Your task to perform on an android device: Open Google Chrome Image 0: 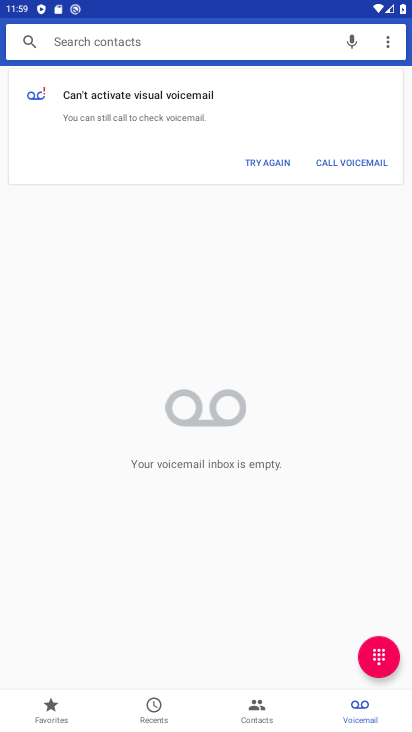
Step 0: press home button
Your task to perform on an android device: Open Google Chrome Image 1: 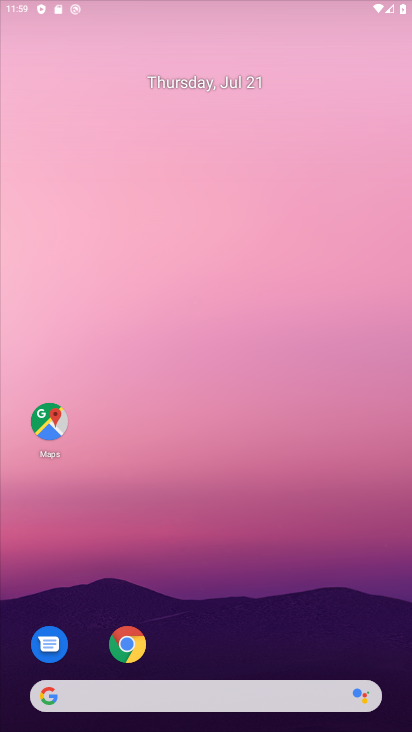
Step 1: drag from (247, 669) to (259, 164)
Your task to perform on an android device: Open Google Chrome Image 2: 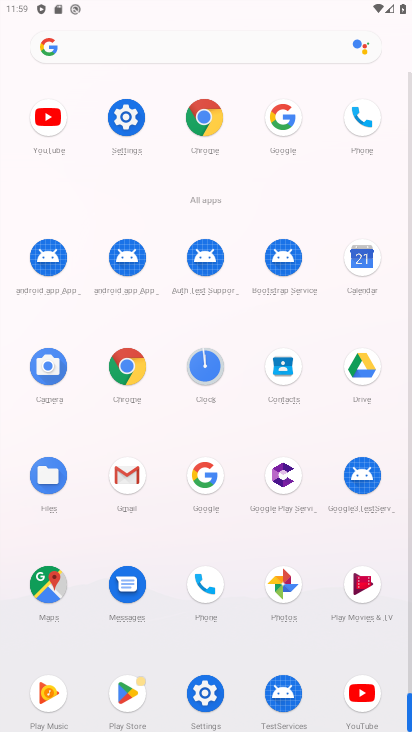
Step 2: click (192, 130)
Your task to perform on an android device: Open Google Chrome Image 3: 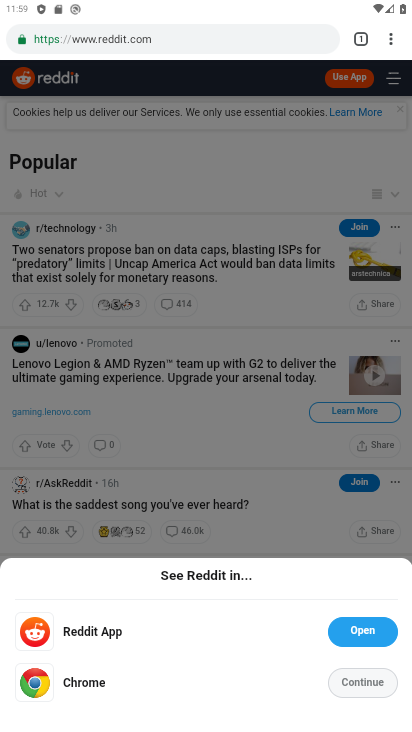
Step 3: task complete